Your task to perform on an android device: When is my next appointment? Image 0: 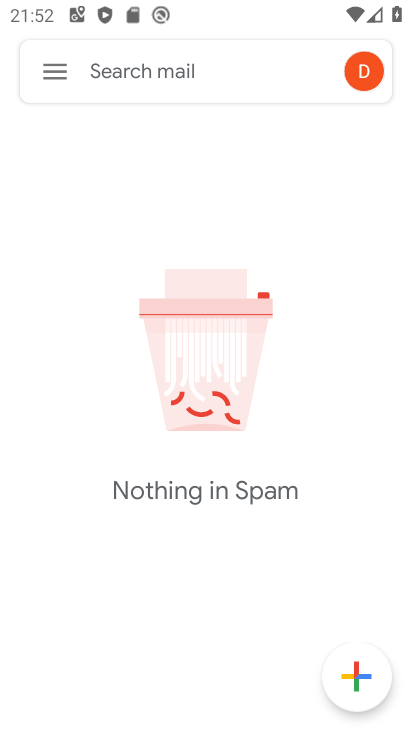
Step 0: press home button
Your task to perform on an android device: When is my next appointment? Image 1: 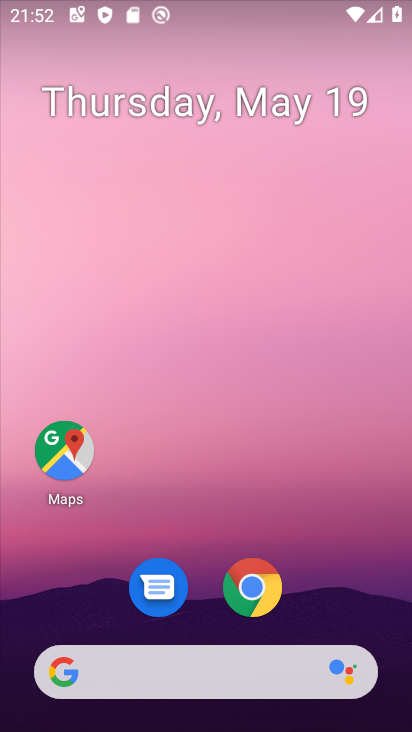
Step 1: drag from (227, 688) to (193, 76)
Your task to perform on an android device: When is my next appointment? Image 2: 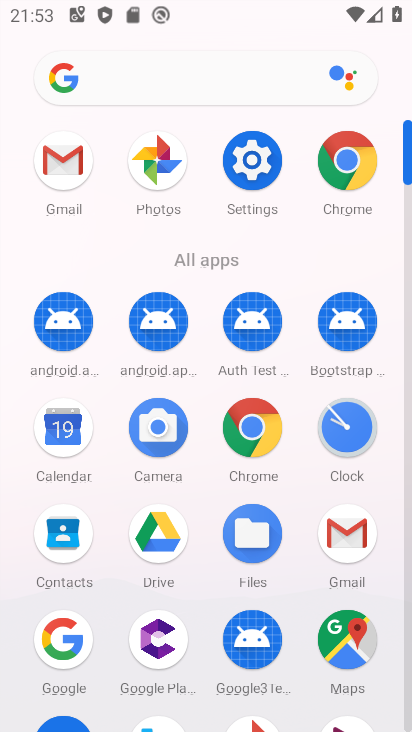
Step 2: click (73, 423)
Your task to perform on an android device: When is my next appointment? Image 3: 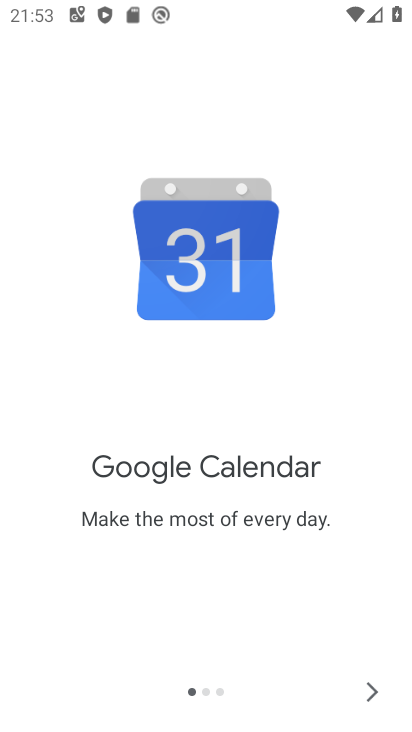
Step 3: click (372, 692)
Your task to perform on an android device: When is my next appointment? Image 4: 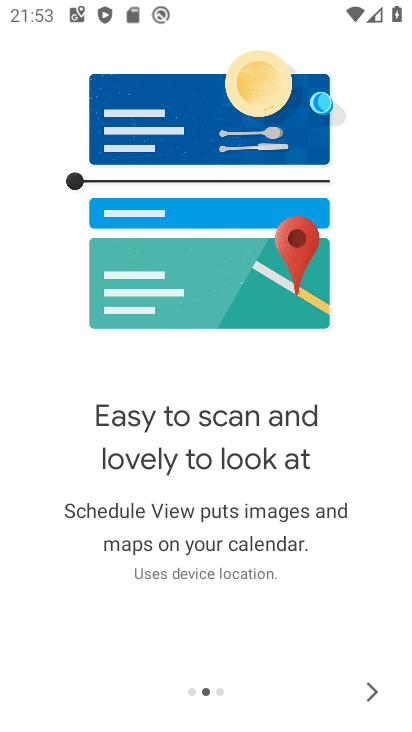
Step 4: click (372, 692)
Your task to perform on an android device: When is my next appointment? Image 5: 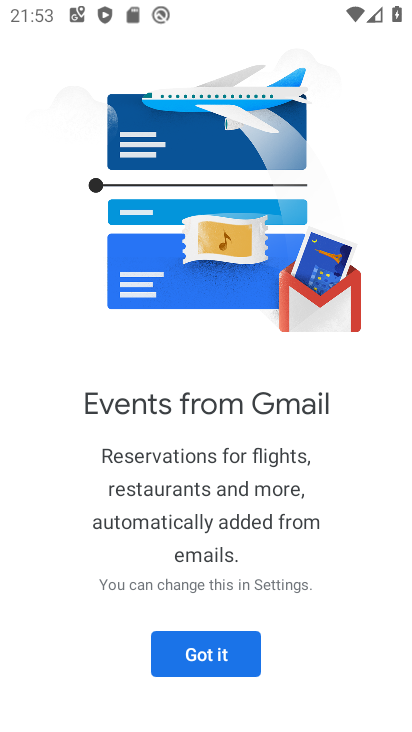
Step 5: click (211, 663)
Your task to perform on an android device: When is my next appointment? Image 6: 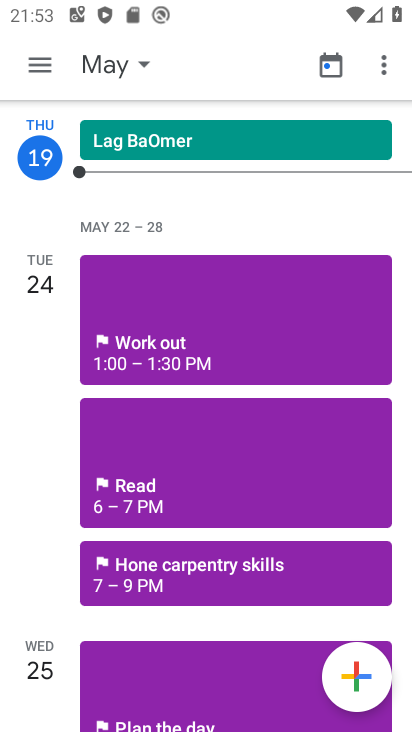
Step 6: click (61, 71)
Your task to perform on an android device: When is my next appointment? Image 7: 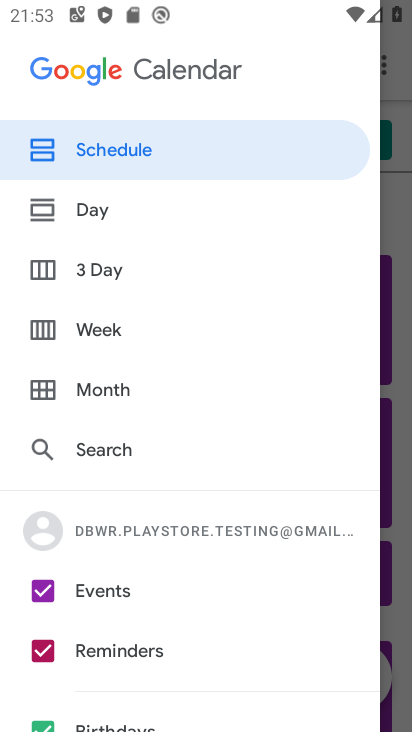
Step 7: click (134, 145)
Your task to perform on an android device: When is my next appointment? Image 8: 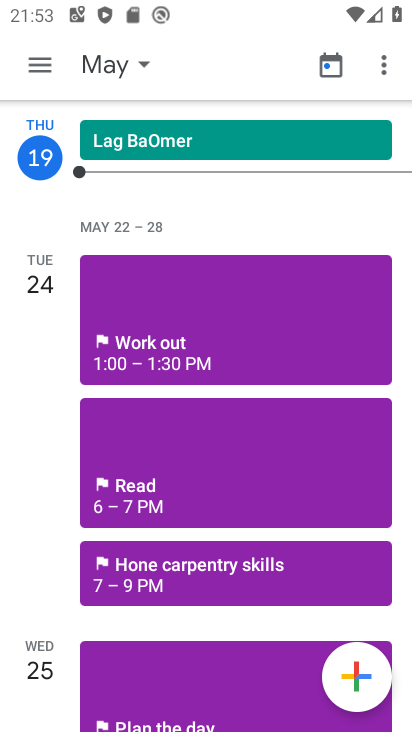
Step 8: task complete